Your task to perform on an android device: turn off sleep mode Image 0: 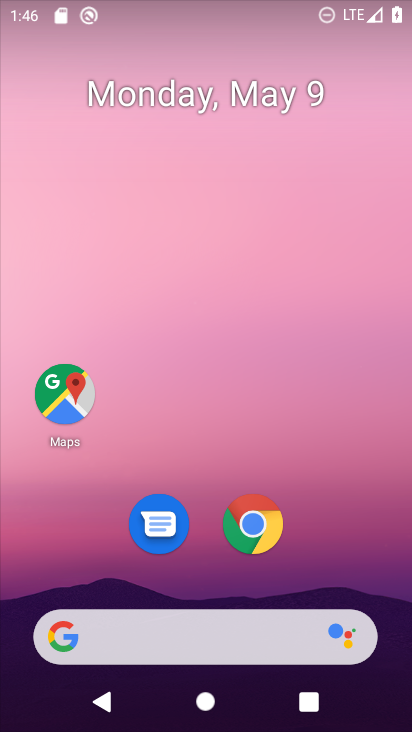
Step 0: drag from (360, 509) to (288, 6)
Your task to perform on an android device: turn off sleep mode Image 1: 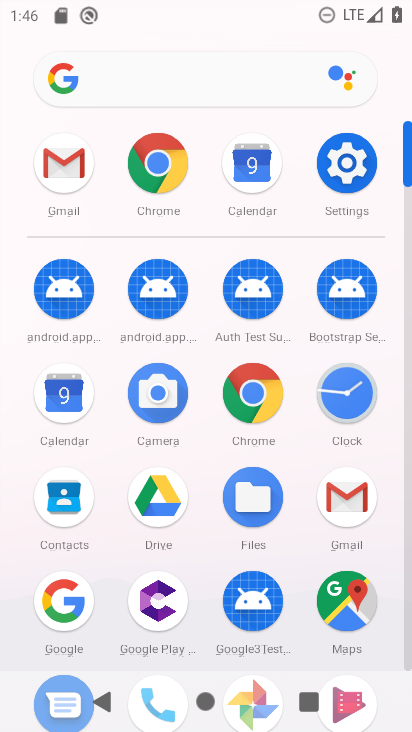
Step 1: click (336, 145)
Your task to perform on an android device: turn off sleep mode Image 2: 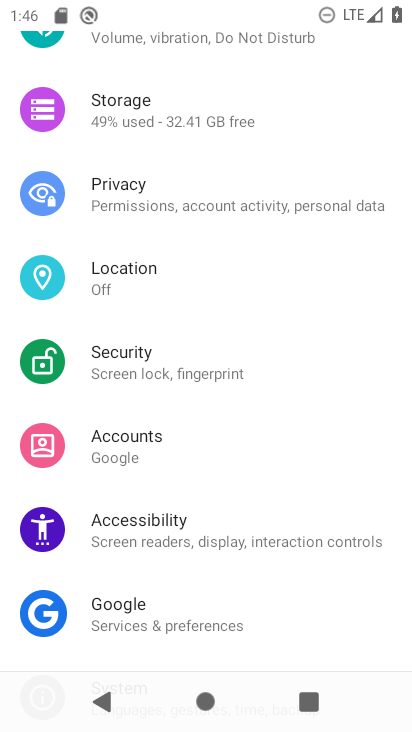
Step 2: drag from (242, 301) to (262, 726)
Your task to perform on an android device: turn off sleep mode Image 3: 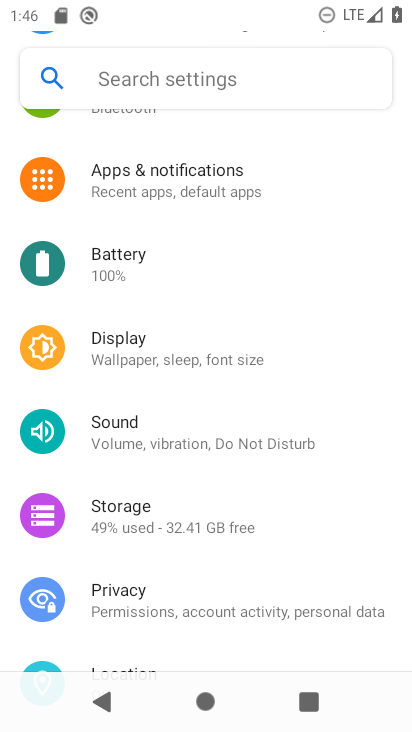
Step 3: click (202, 335)
Your task to perform on an android device: turn off sleep mode Image 4: 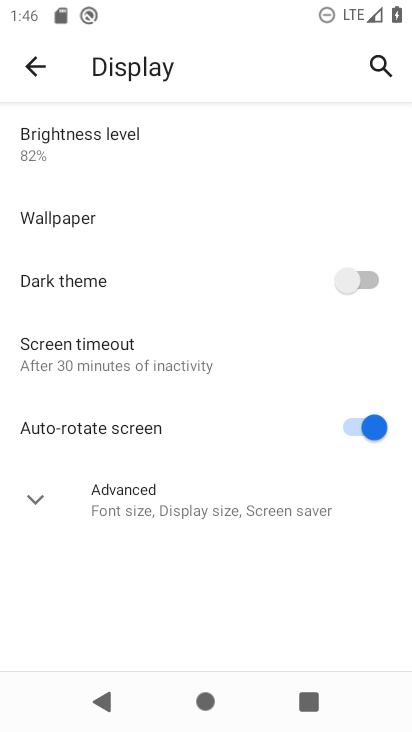
Step 4: click (37, 504)
Your task to perform on an android device: turn off sleep mode Image 5: 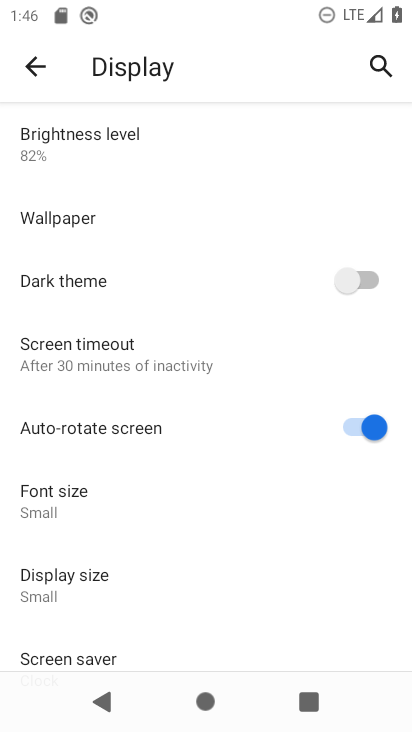
Step 5: task complete